Your task to perform on an android device: Open the web browser Image 0: 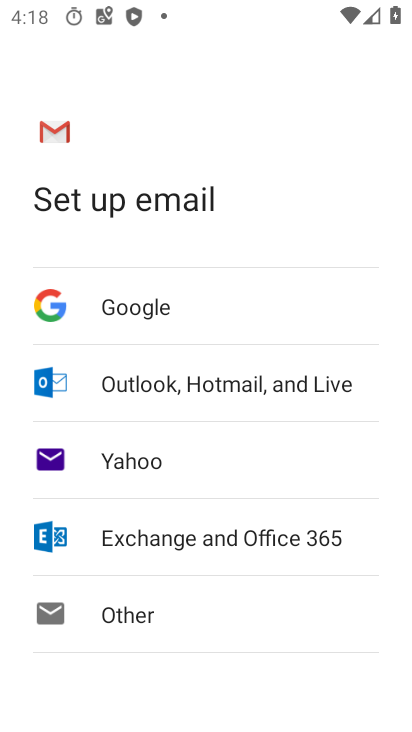
Step 0: press home button
Your task to perform on an android device: Open the web browser Image 1: 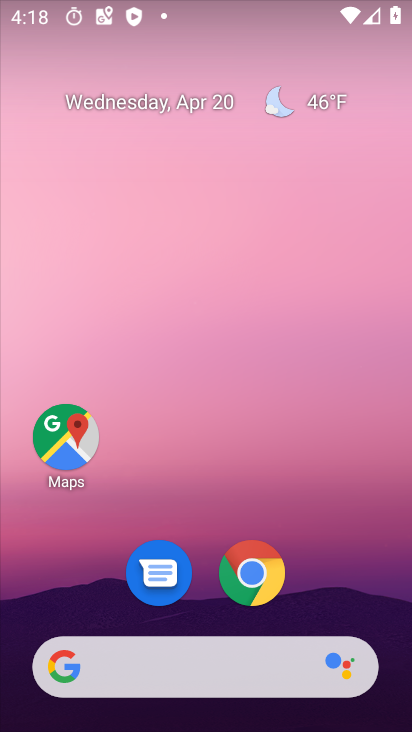
Step 1: click (270, 583)
Your task to perform on an android device: Open the web browser Image 2: 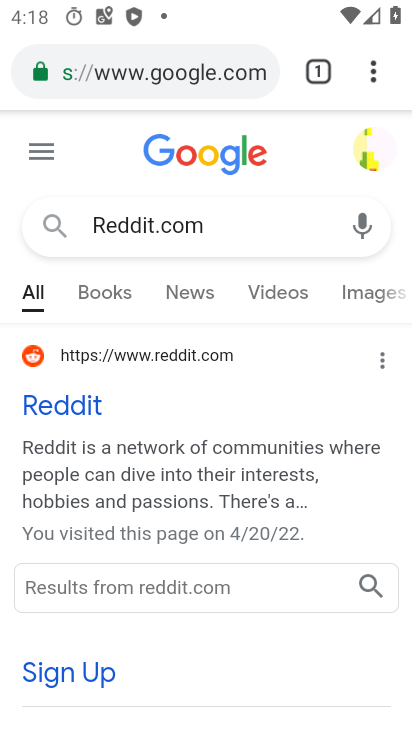
Step 2: task complete